Your task to perform on an android device: delete the emails in spam in the gmail app Image 0: 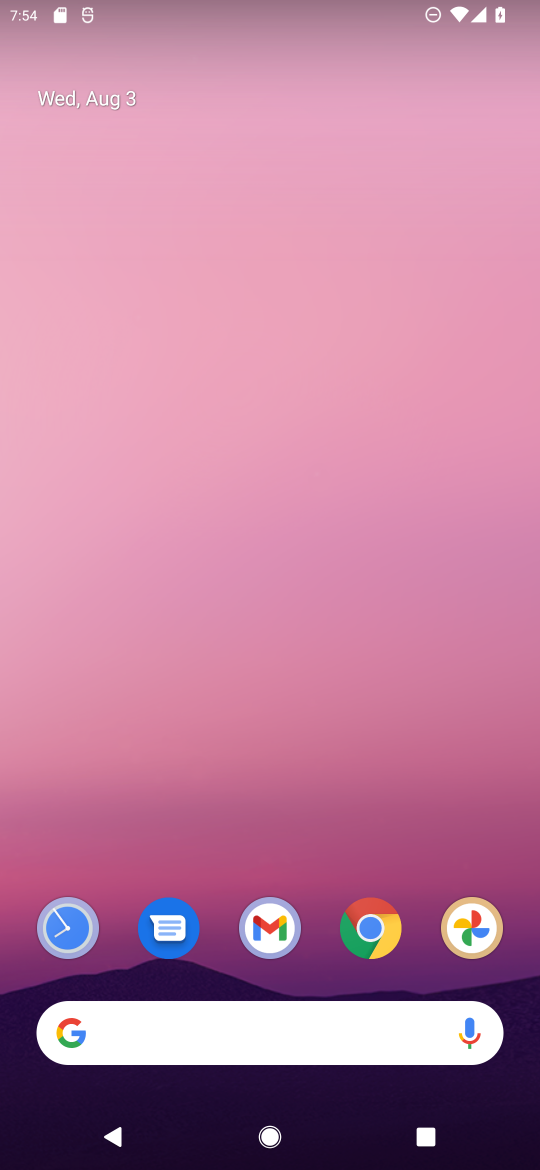
Step 0: drag from (397, 860) to (338, 19)
Your task to perform on an android device: delete the emails in spam in the gmail app Image 1: 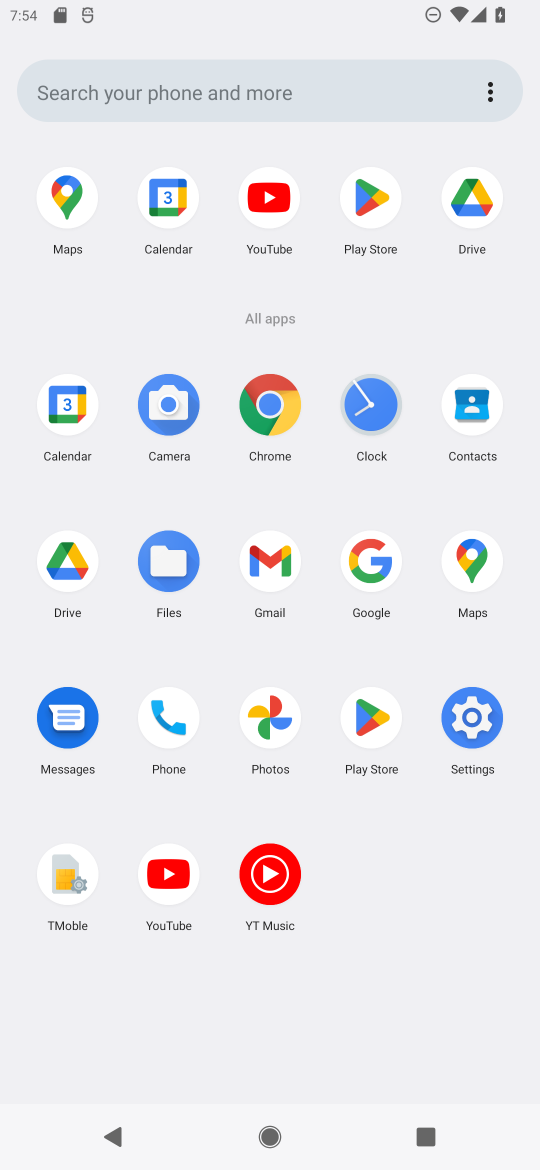
Step 1: click (282, 564)
Your task to perform on an android device: delete the emails in spam in the gmail app Image 2: 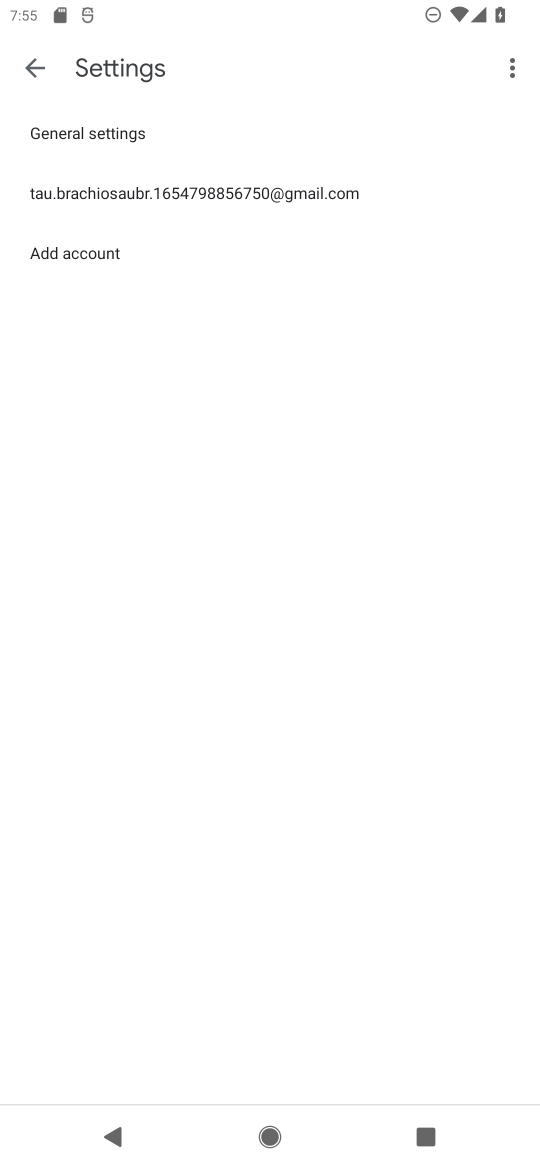
Step 2: click (45, 67)
Your task to perform on an android device: delete the emails in spam in the gmail app Image 3: 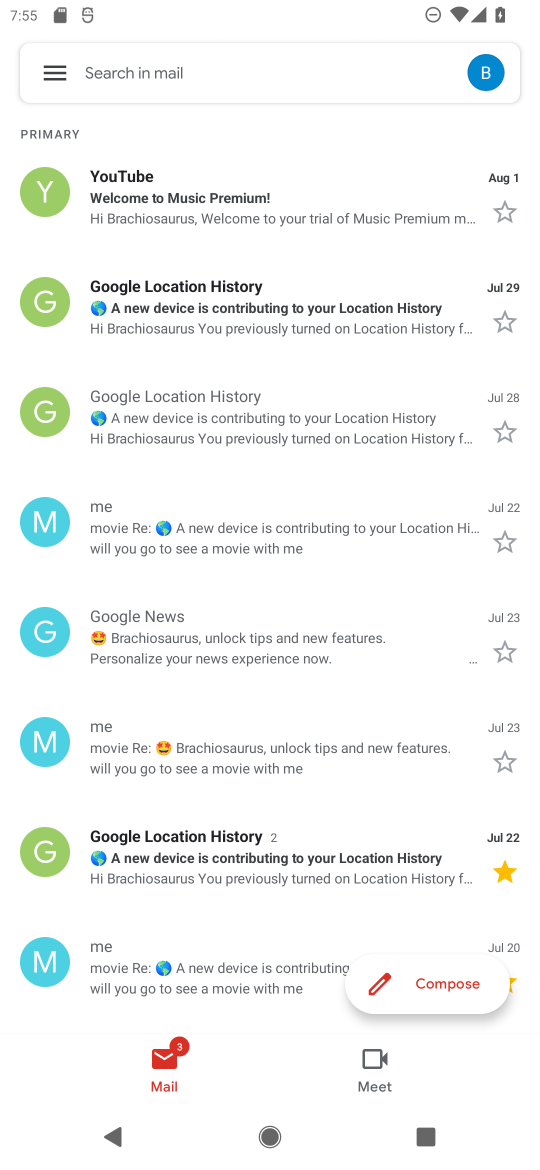
Step 3: click (69, 79)
Your task to perform on an android device: delete the emails in spam in the gmail app Image 4: 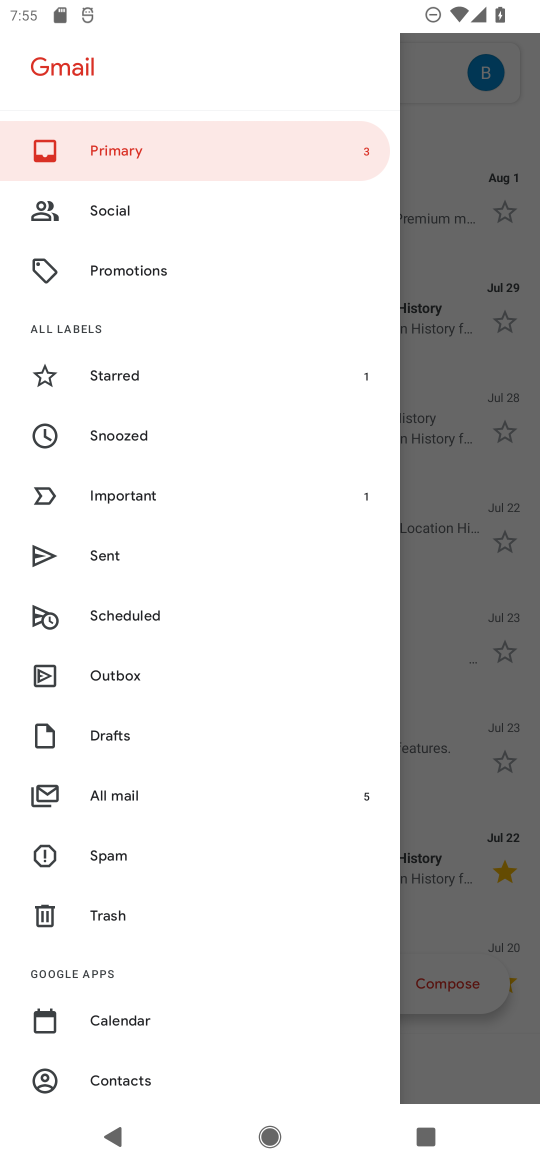
Step 4: click (177, 858)
Your task to perform on an android device: delete the emails in spam in the gmail app Image 5: 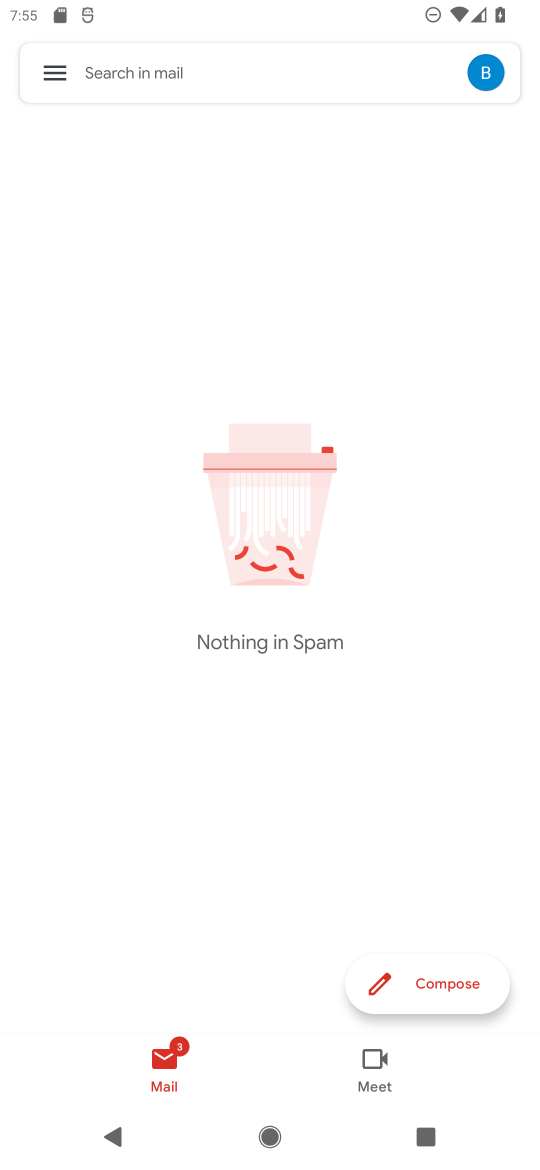
Step 5: task complete